Your task to perform on an android device: turn off javascript in the chrome app Image 0: 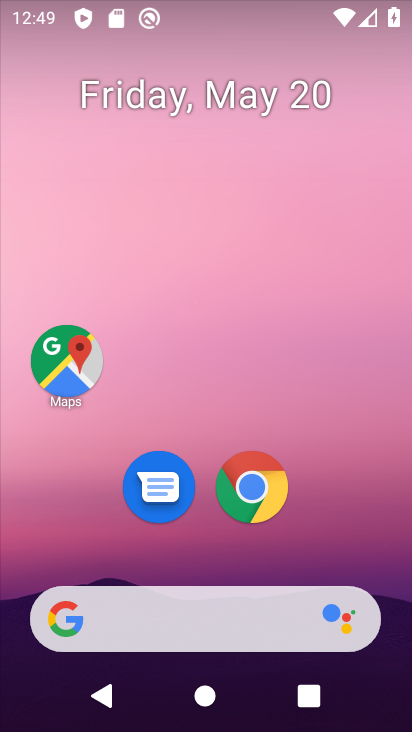
Step 0: click (254, 496)
Your task to perform on an android device: turn off javascript in the chrome app Image 1: 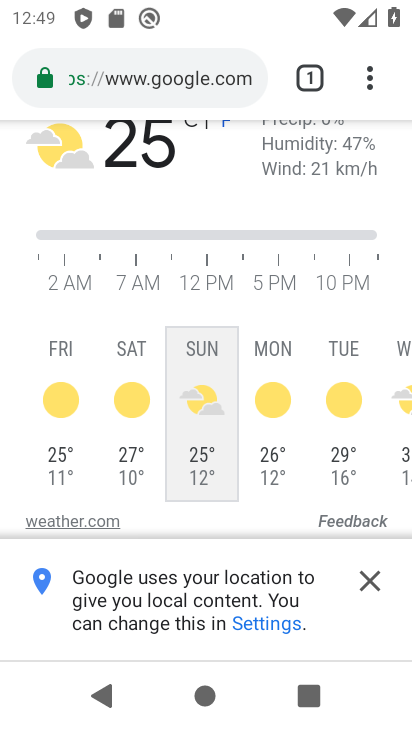
Step 1: click (376, 77)
Your task to perform on an android device: turn off javascript in the chrome app Image 2: 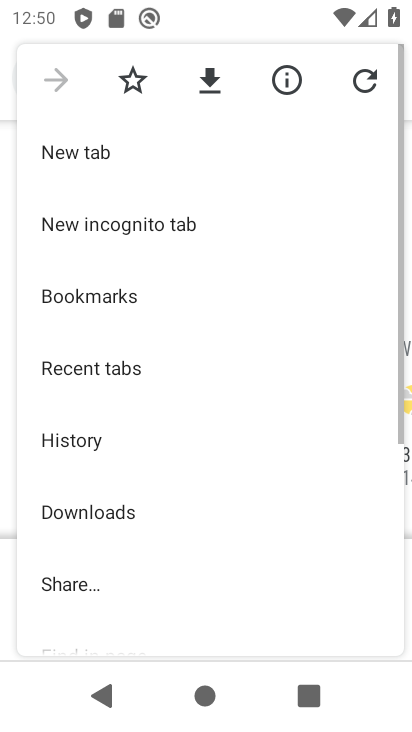
Step 2: drag from (251, 575) to (208, 191)
Your task to perform on an android device: turn off javascript in the chrome app Image 3: 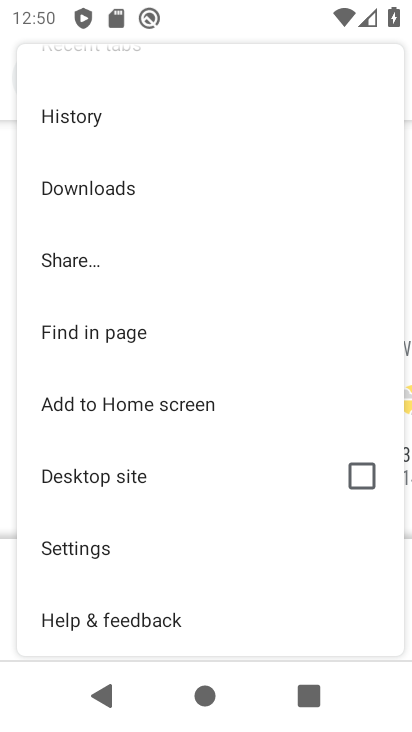
Step 3: click (94, 555)
Your task to perform on an android device: turn off javascript in the chrome app Image 4: 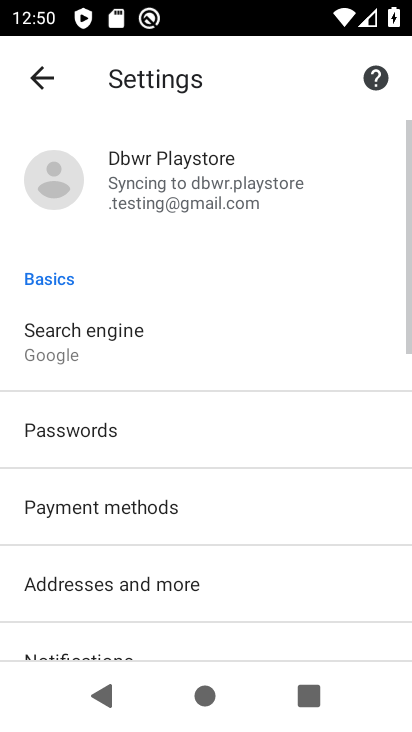
Step 4: drag from (293, 540) to (322, 240)
Your task to perform on an android device: turn off javascript in the chrome app Image 5: 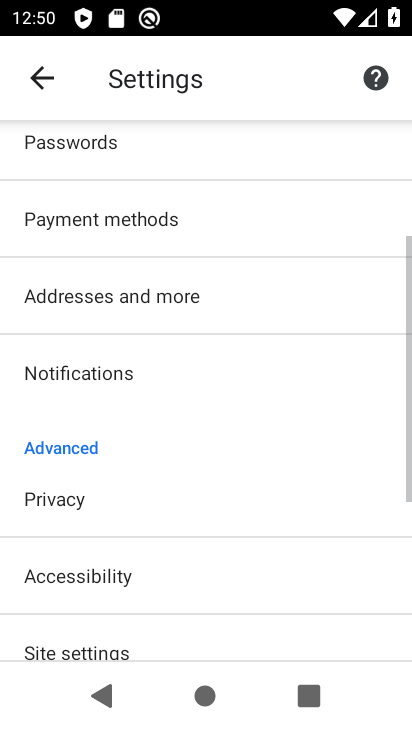
Step 5: drag from (253, 584) to (302, 327)
Your task to perform on an android device: turn off javascript in the chrome app Image 6: 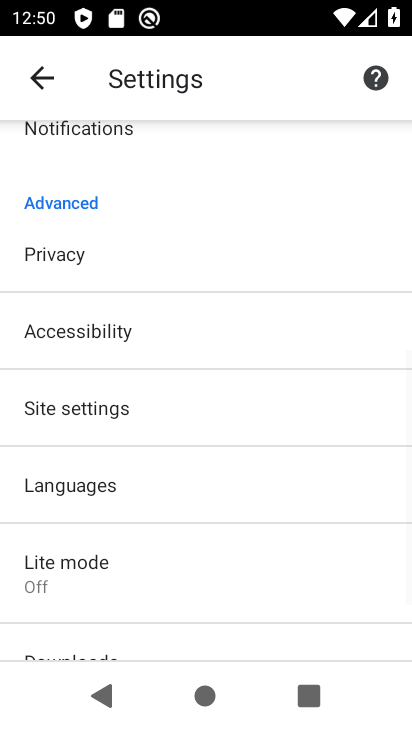
Step 6: click (137, 403)
Your task to perform on an android device: turn off javascript in the chrome app Image 7: 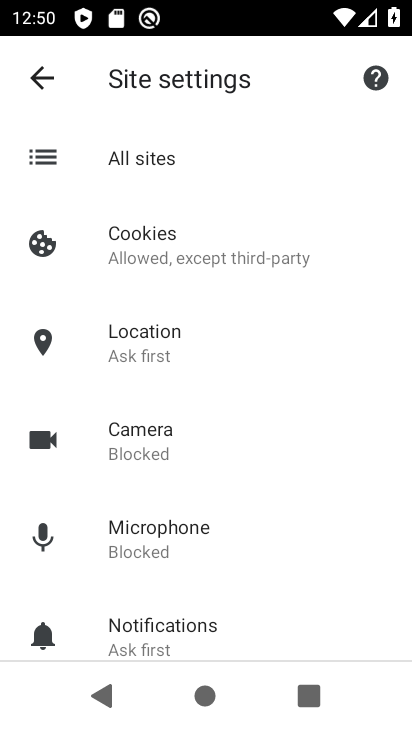
Step 7: drag from (320, 519) to (346, 129)
Your task to perform on an android device: turn off javascript in the chrome app Image 8: 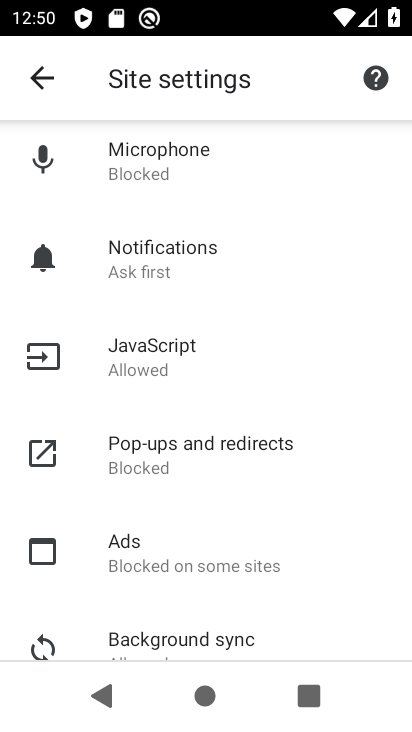
Step 8: click (176, 357)
Your task to perform on an android device: turn off javascript in the chrome app Image 9: 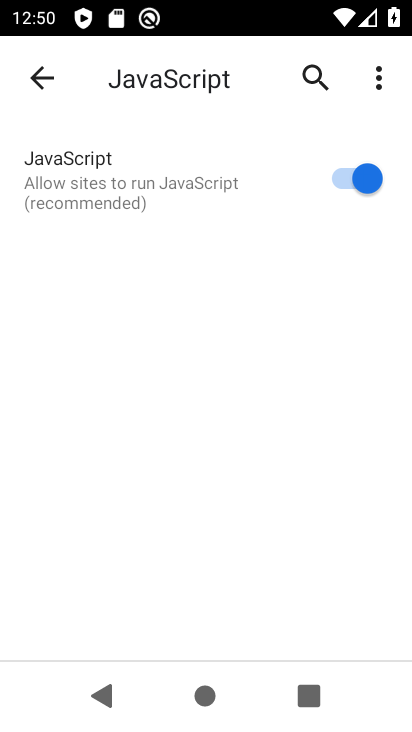
Step 9: click (348, 172)
Your task to perform on an android device: turn off javascript in the chrome app Image 10: 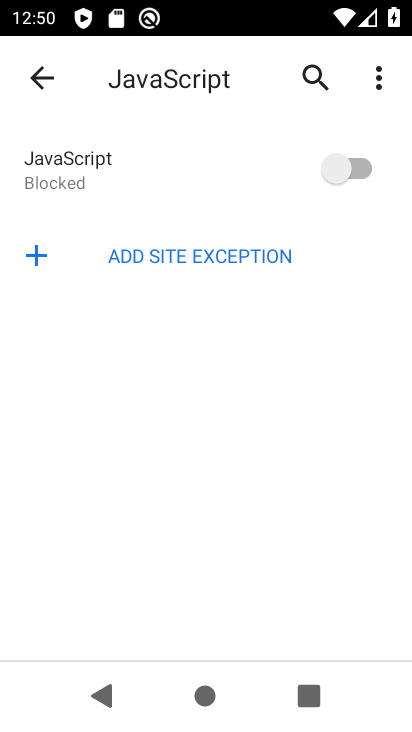
Step 10: task complete